Your task to perform on an android device: See recent photos Image 0: 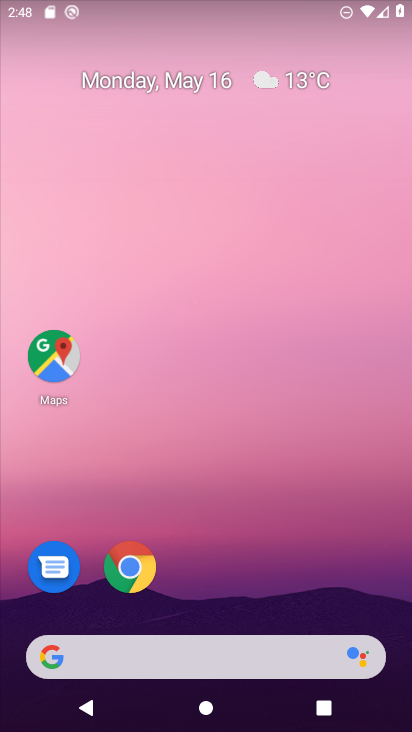
Step 0: drag from (272, 626) to (299, 155)
Your task to perform on an android device: See recent photos Image 1: 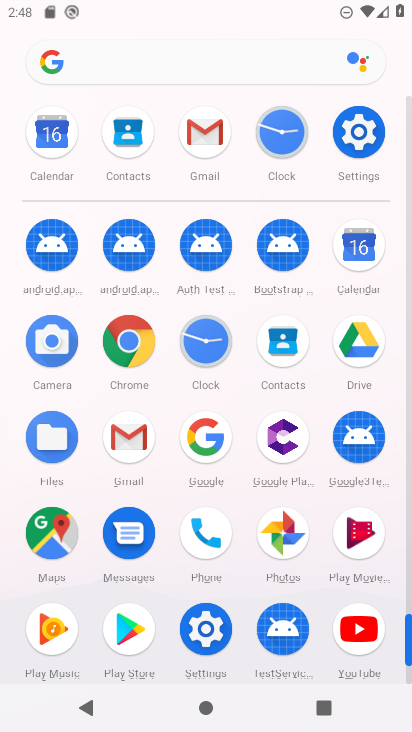
Step 1: click (296, 540)
Your task to perform on an android device: See recent photos Image 2: 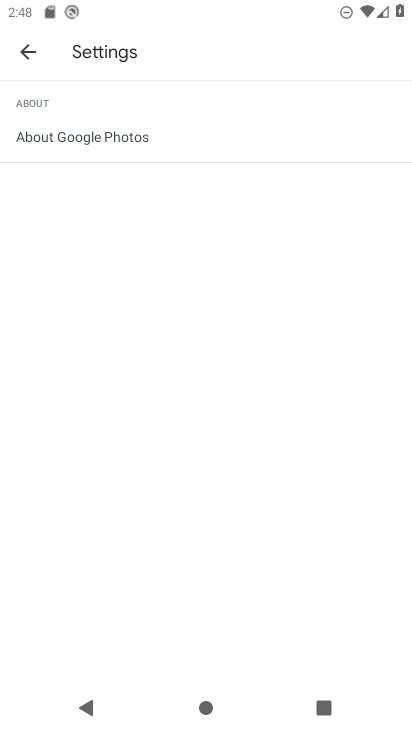
Step 2: click (26, 57)
Your task to perform on an android device: See recent photos Image 3: 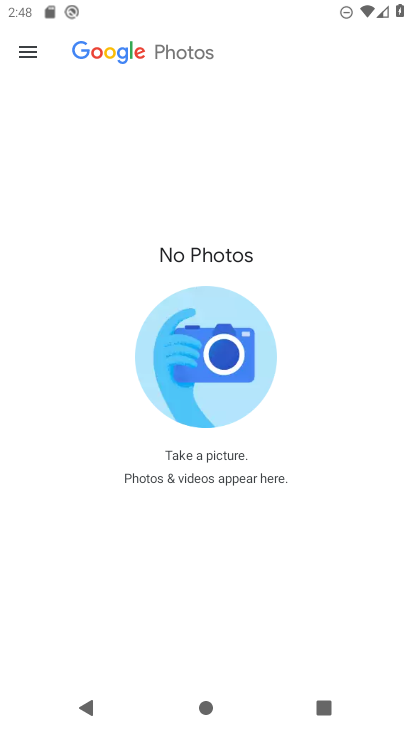
Step 3: click (17, 56)
Your task to perform on an android device: See recent photos Image 4: 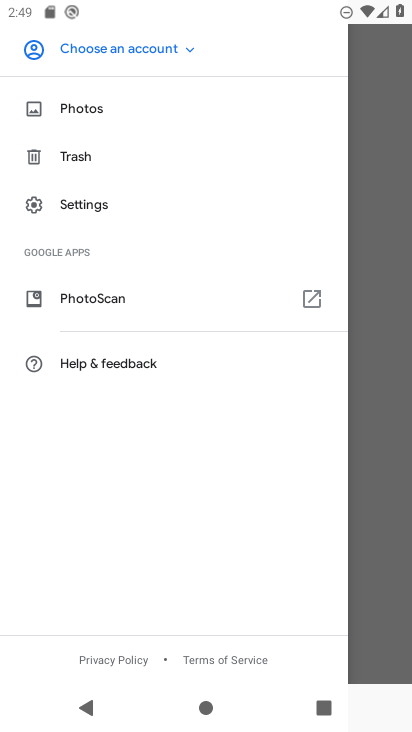
Step 4: click (113, 48)
Your task to perform on an android device: See recent photos Image 5: 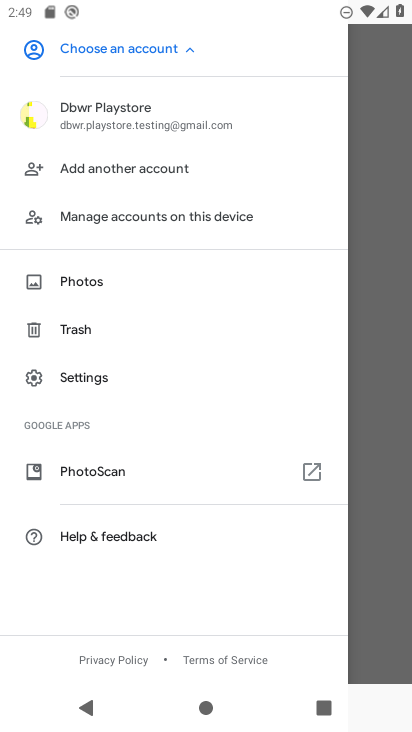
Step 5: click (156, 106)
Your task to perform on an android device: See recent photos Image 6: 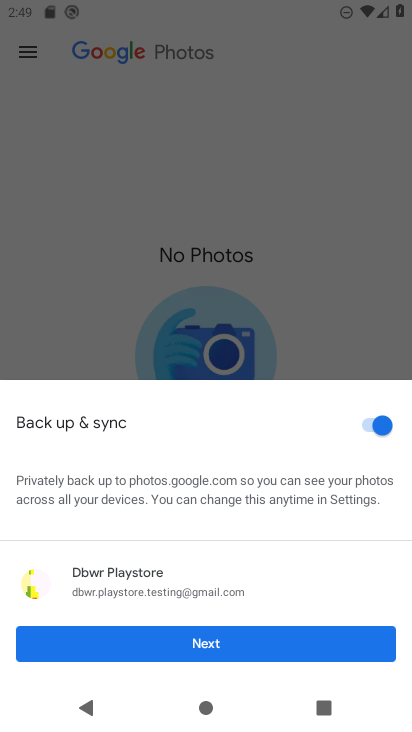
Step 6: click (280, 642)
Your task to perform on an android device: See recent photos Image 7: 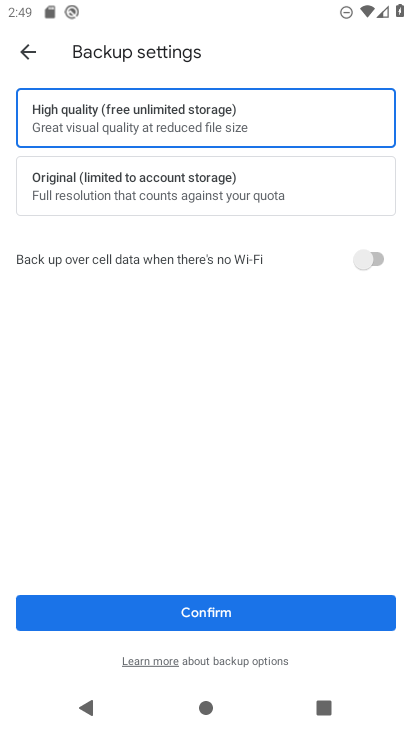
Step 7: click (273, 612)
Your task to perform on an android device: See recent photos Image 8: 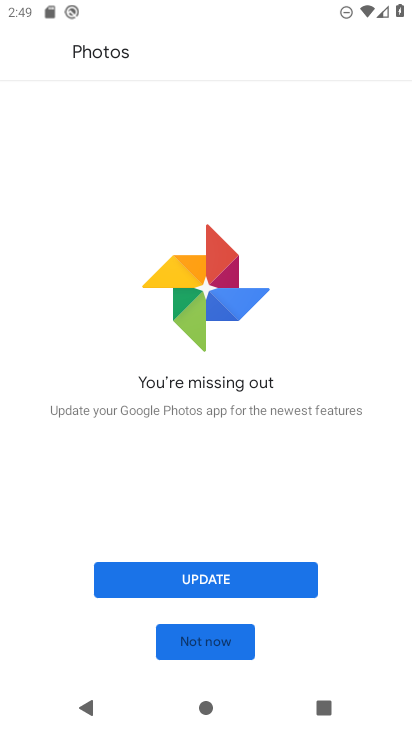
Step 8: click (210, 633)
Your task to perform on an android device: See recent photos Image 9: 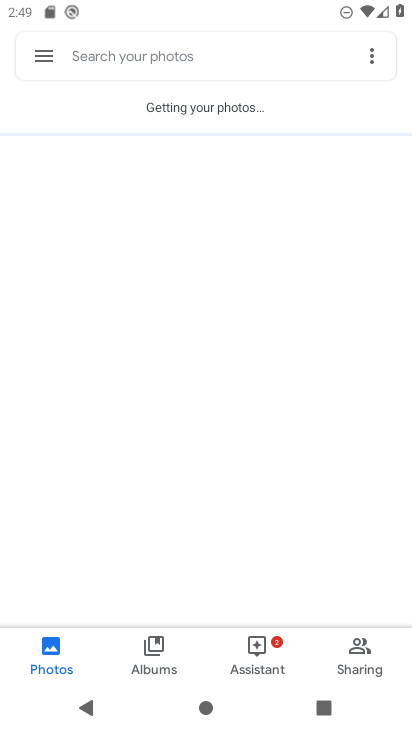
Step 9: task complete